Your task to perform on an android device: Go to ESPN.com Image 0: 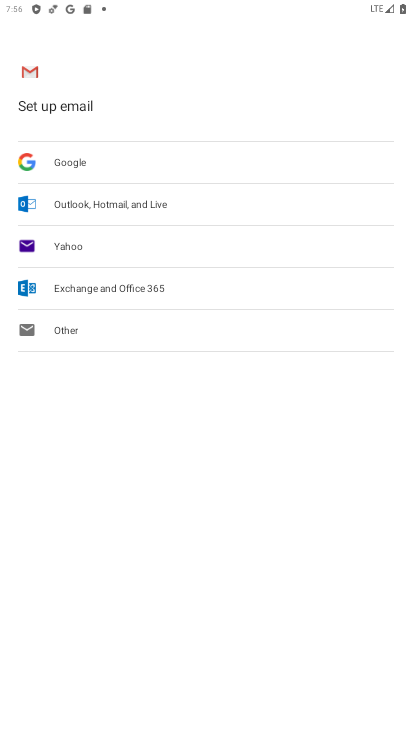
Step 0: press home button
Your task to perform on an android device: Go to ESPN.com Image 1: 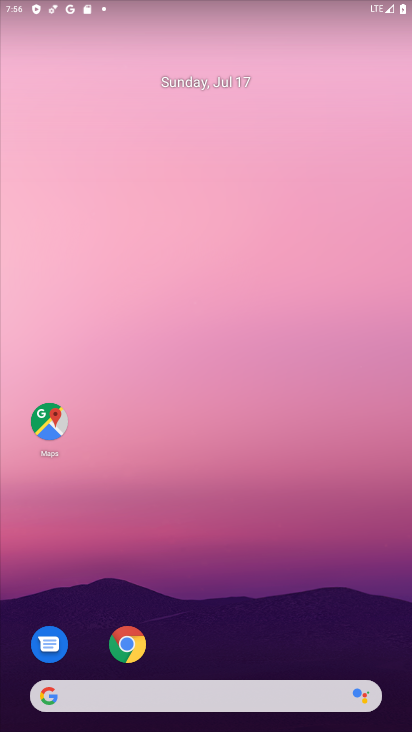
Step 1: click (123, 634)
Your task to perform on an android device: Go to ESPN.com Image 2: 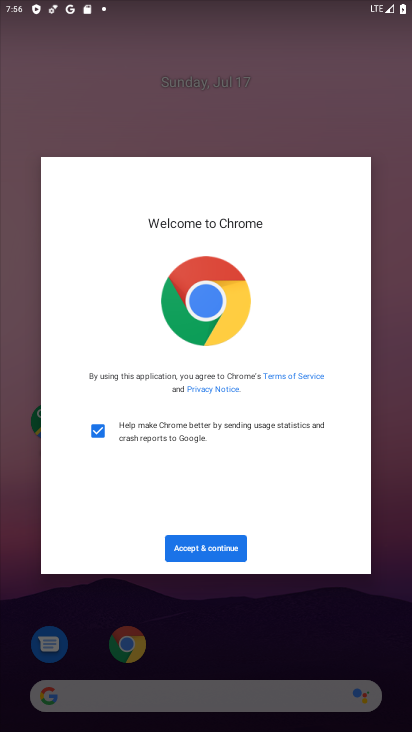
Step 2: click (204, 545)
Your task to perform on an android device: Go to ESPN.com Image 3: 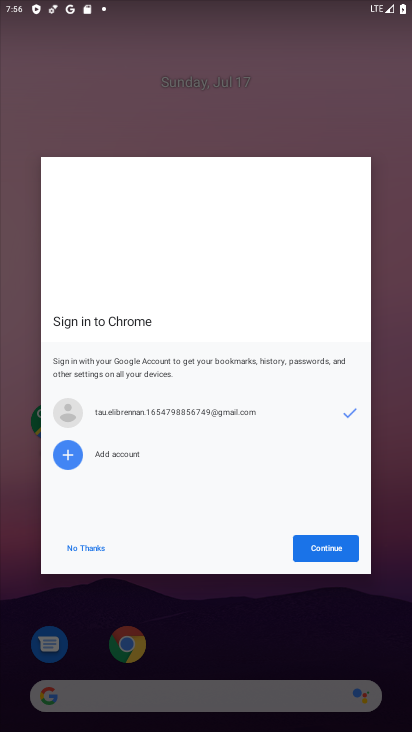
Step 3: click (318, 546)
Your task to perform on an android device: Go to ESPN.com Image 4: 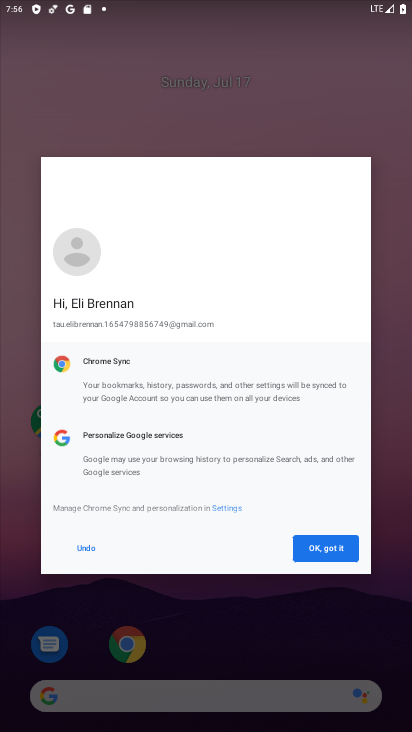
Step 4: click (318, 546)
Your task to perform on an android device: Go to ESPN.com Image 5: 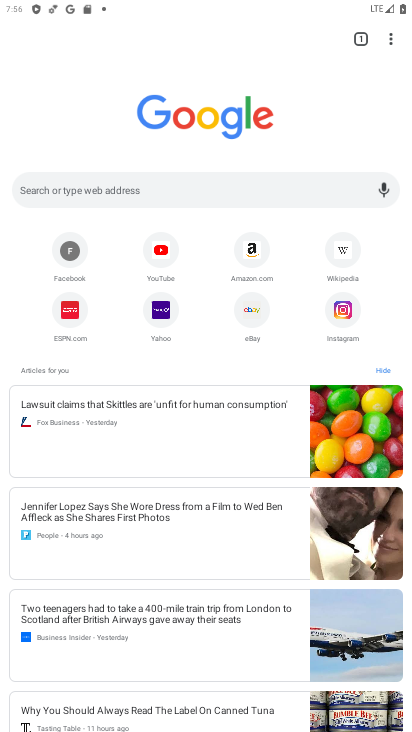
Step 5: click (77, 325)
Your task to perform on an android device: Go to ESPN.com Image 6: 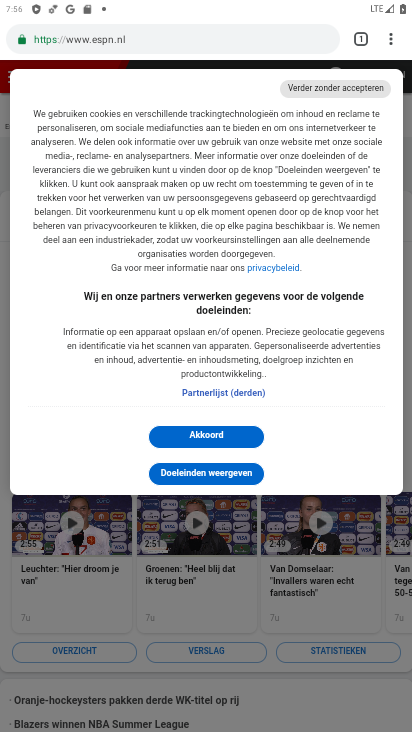
Step 6: task complete